Your task to perform on an android device: install app "Pluto TV - Live TV and Movies" Image 0: 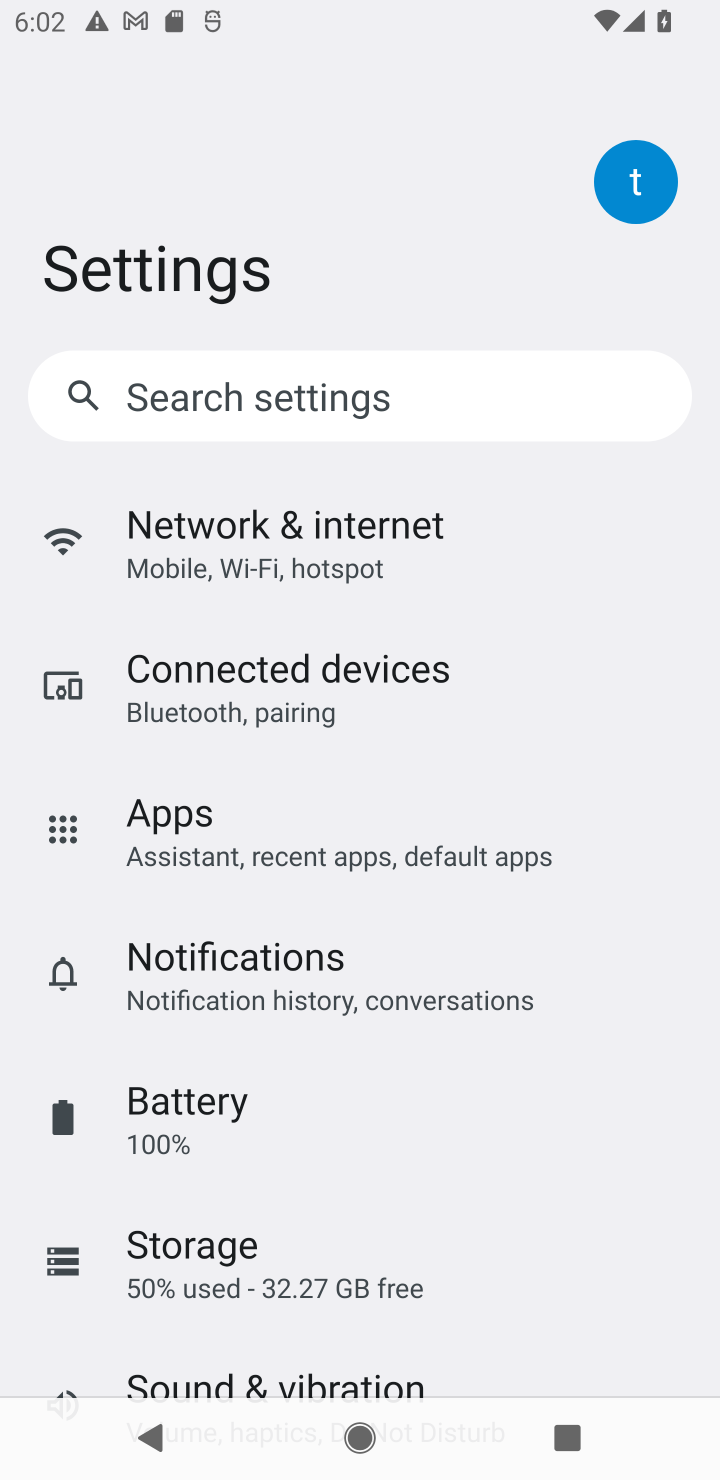
Step 0: press home button
Your task to perform on an android device: install app "Pluto TV - Live TV and Movies" Image 1: 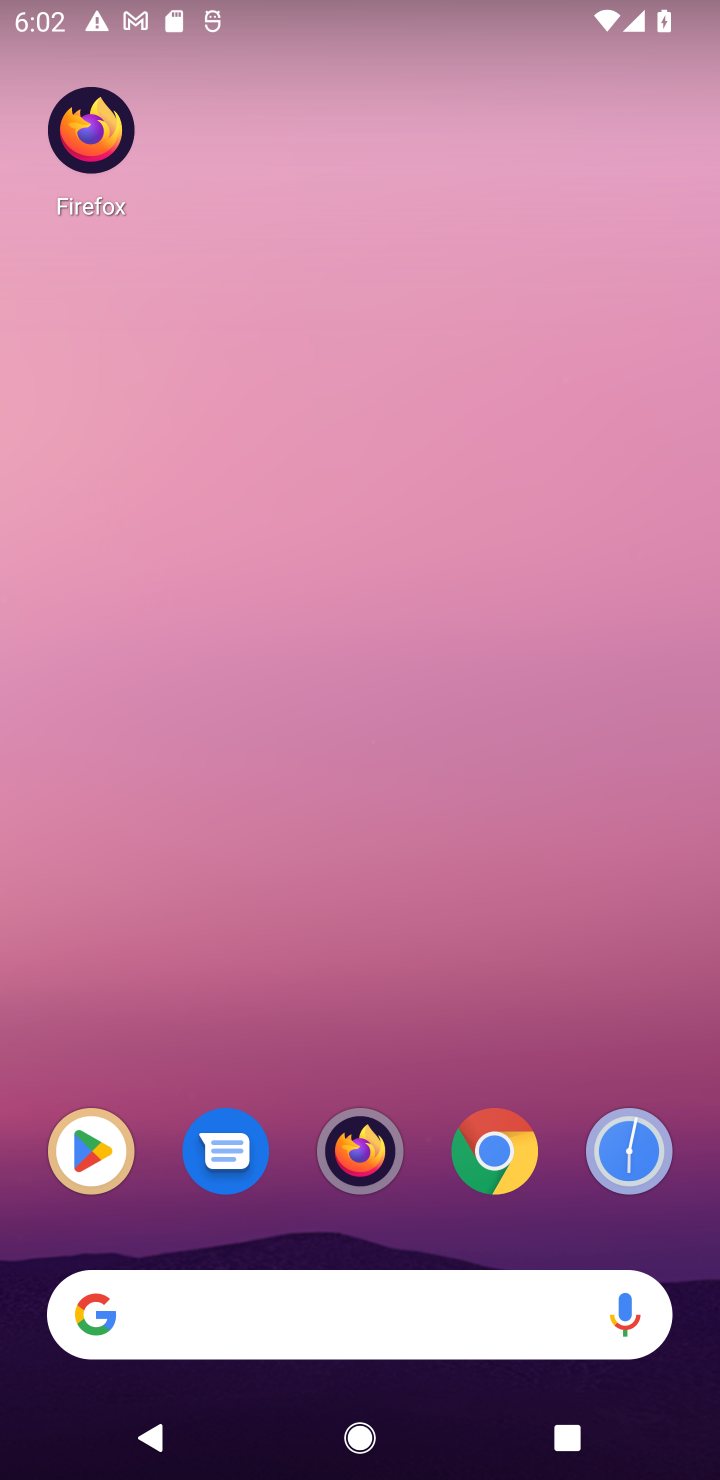
Step 1: drag from (480, 1297) to (502, 203)
Your task to perform on an android device: install app "Pluto TV - Live TV and Movies" Image 2: 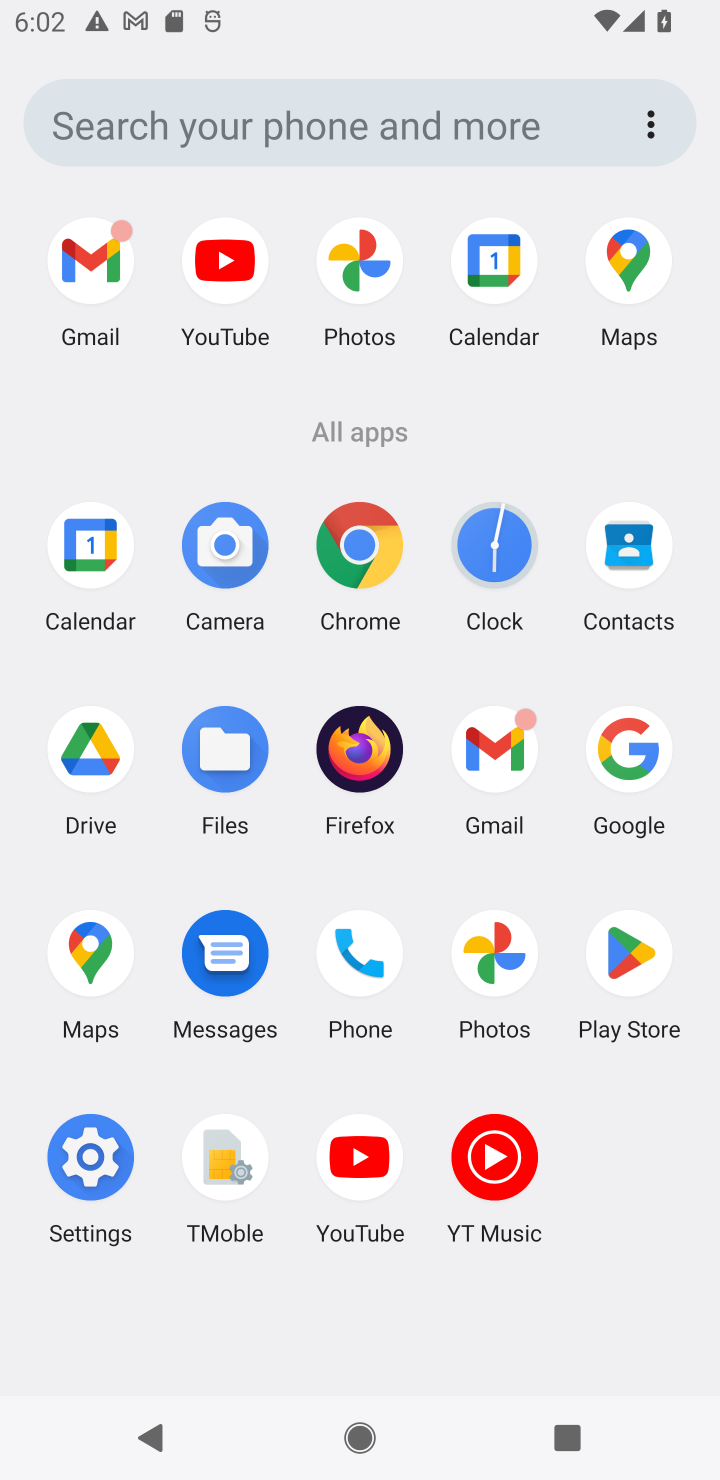
Step 2: click (632, 979)
Your task to perform on an android device: install app "Pluto TV - Live TV and Movies" Image 3: 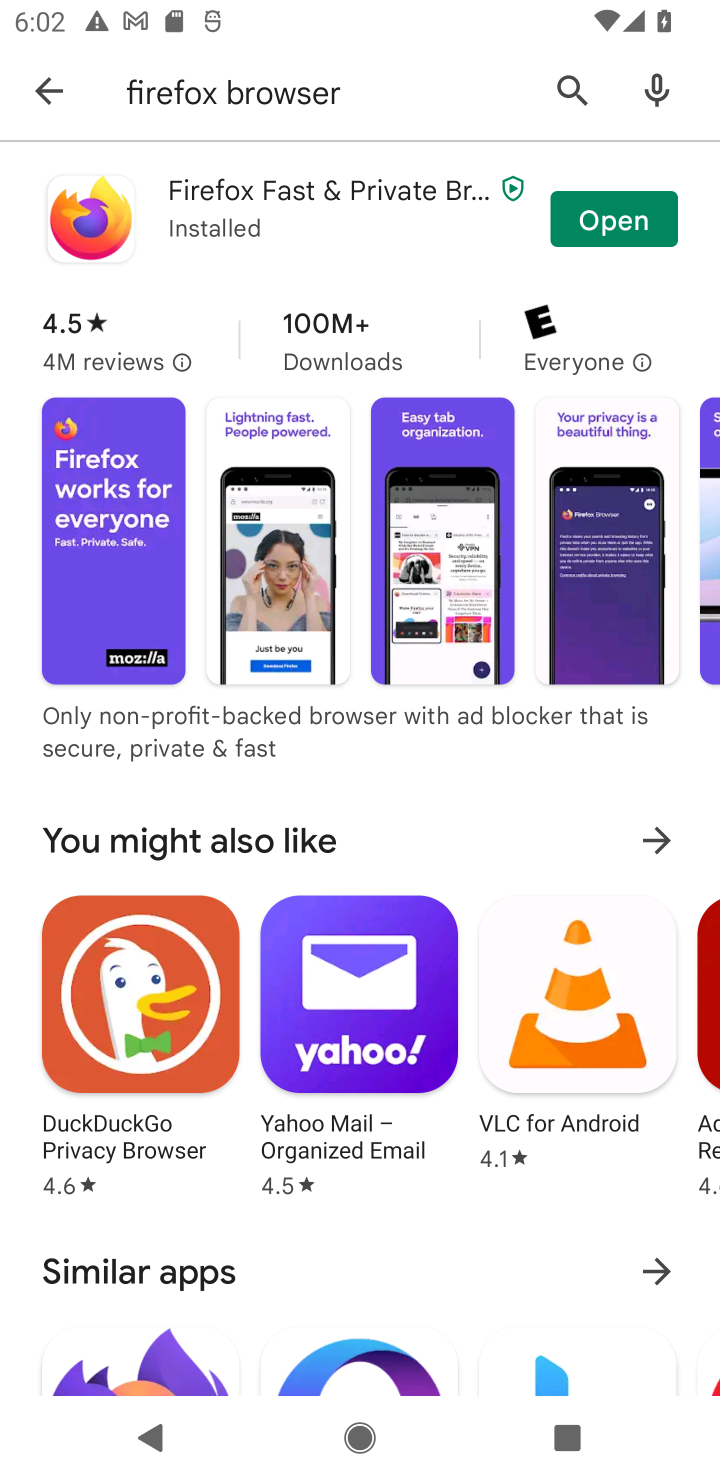
Step 3: click (576, 89)
Your task to perform on an android device: install app "Pluto TV - Live TV and Movies" Image 4: 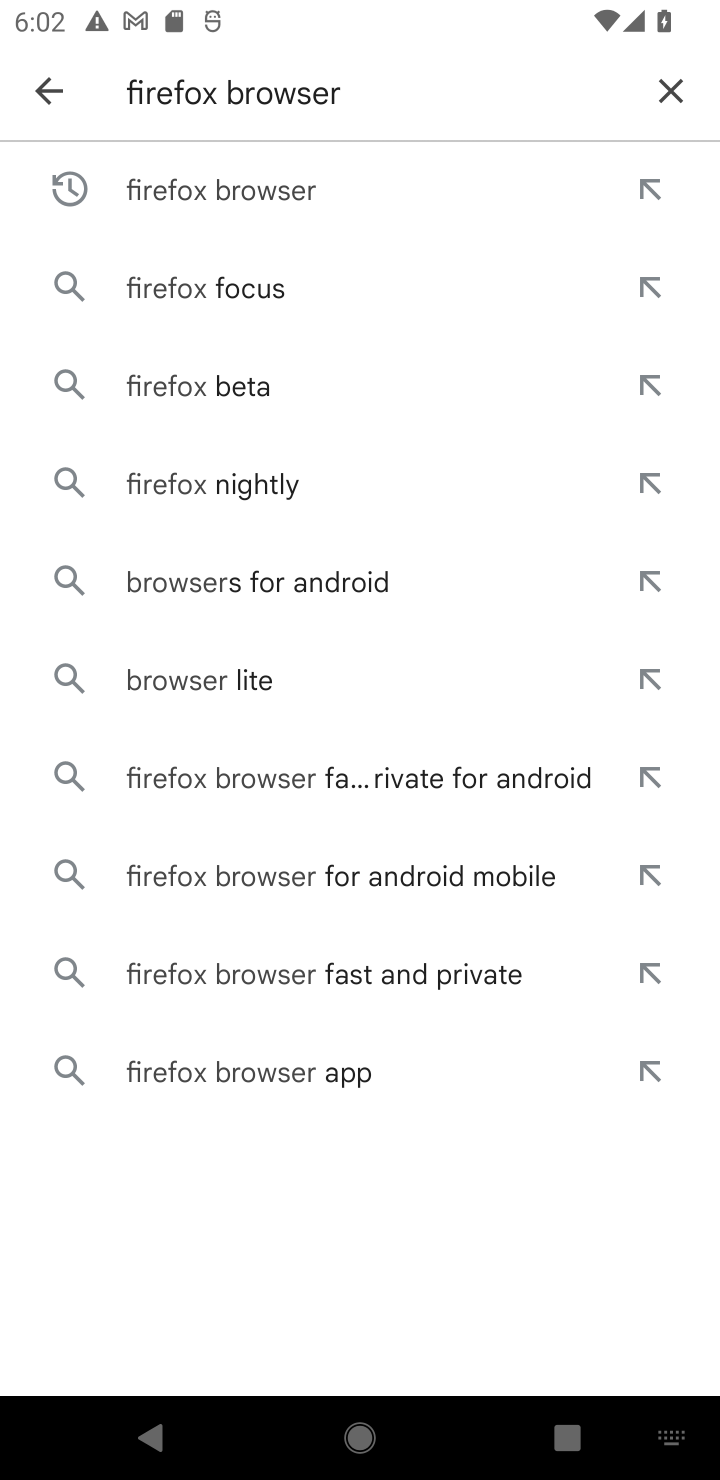
Step 4: click (682, 95)
Your task to perform on an android device: install app "Pluto TV - Live TV and Movies" Image 5: 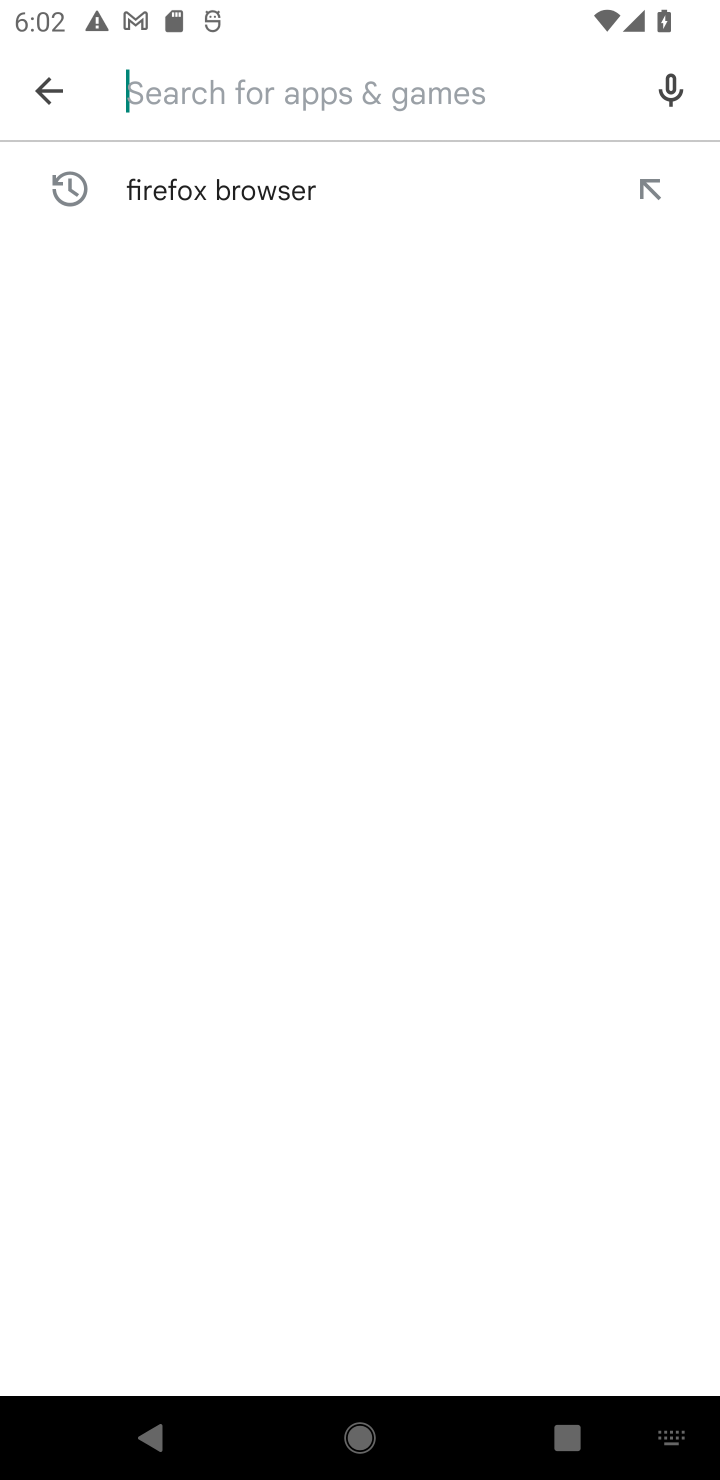
Step 5: type "pluto tv - live tv and movies"
Your task to perform on an android device: install app "Pluto TV - Live TV and Movies" Image 6: 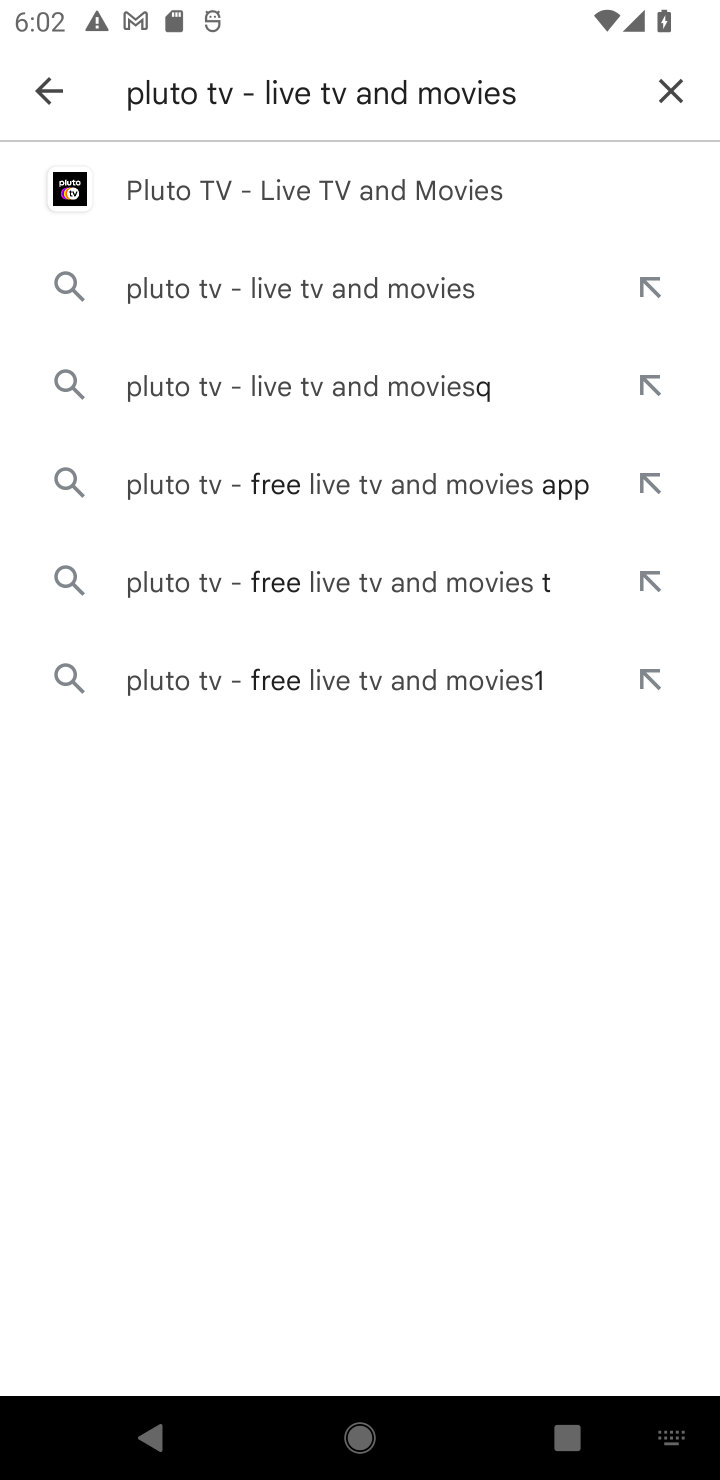
Step 6: click (248, 194)
Your task to perform on an android device: install app "Pluto TV - Live TV and Movies" Image 7: 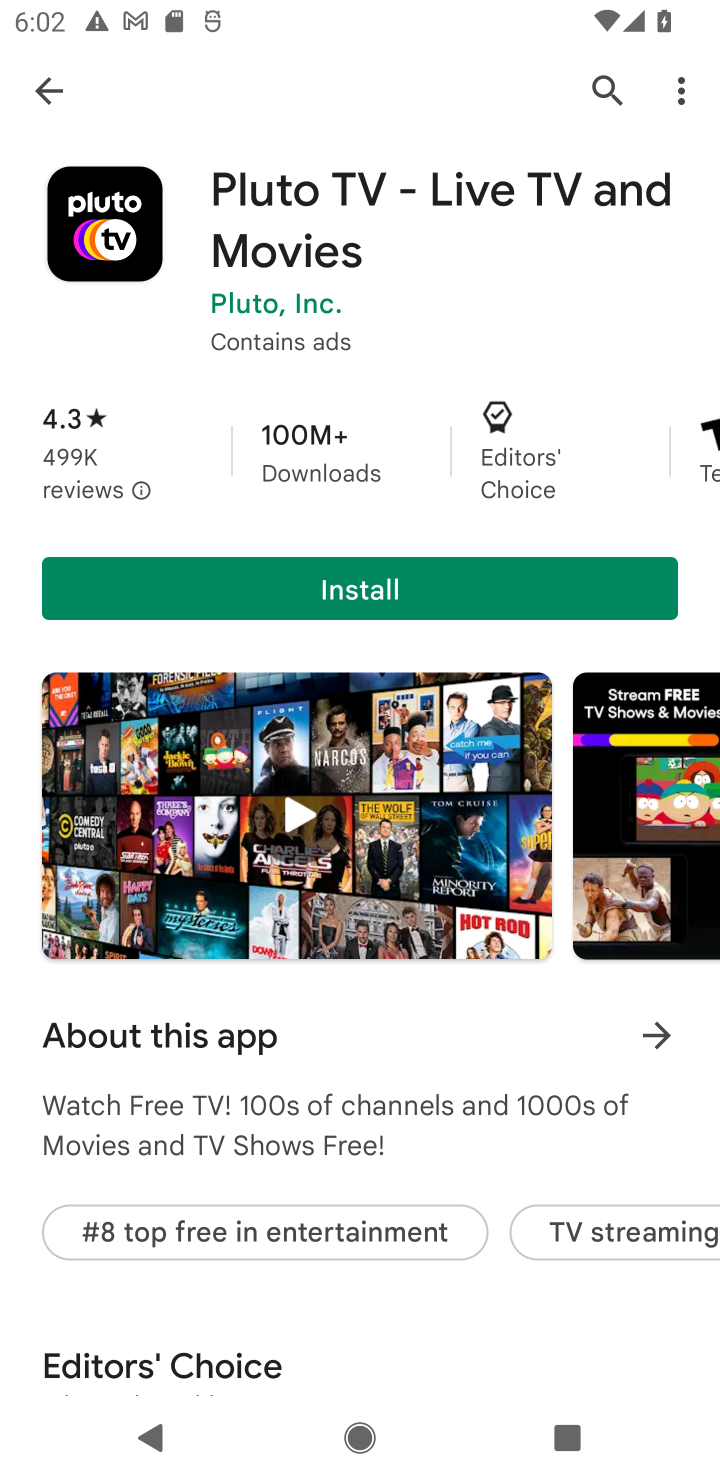
Step 7: click (328, 604)
Your task to perform on an android device: install app "Pluto TV - Live TV and Movies" Image 8: 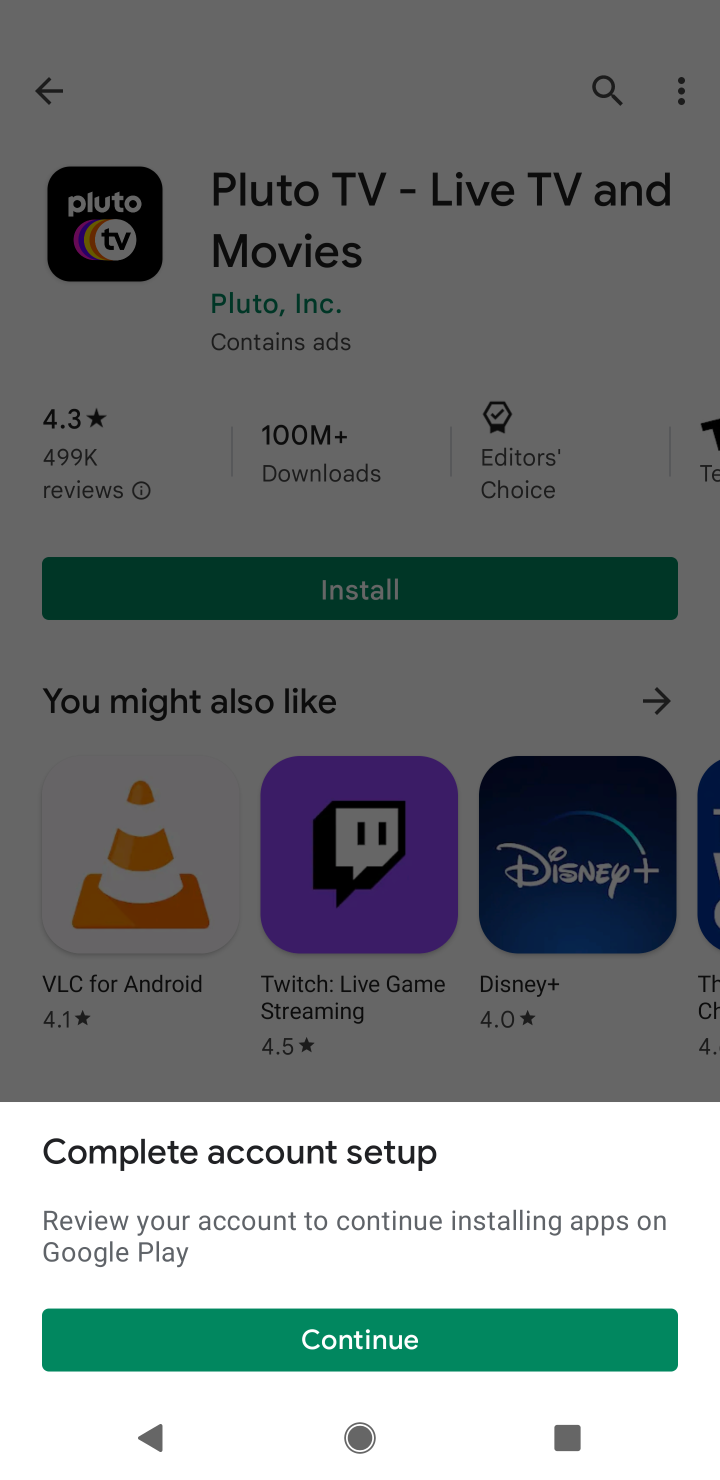
Step 8: click (342, 1343)
Your task to perform on an android device: install app "Pluto TV - Live TV and Movies" Image 9: 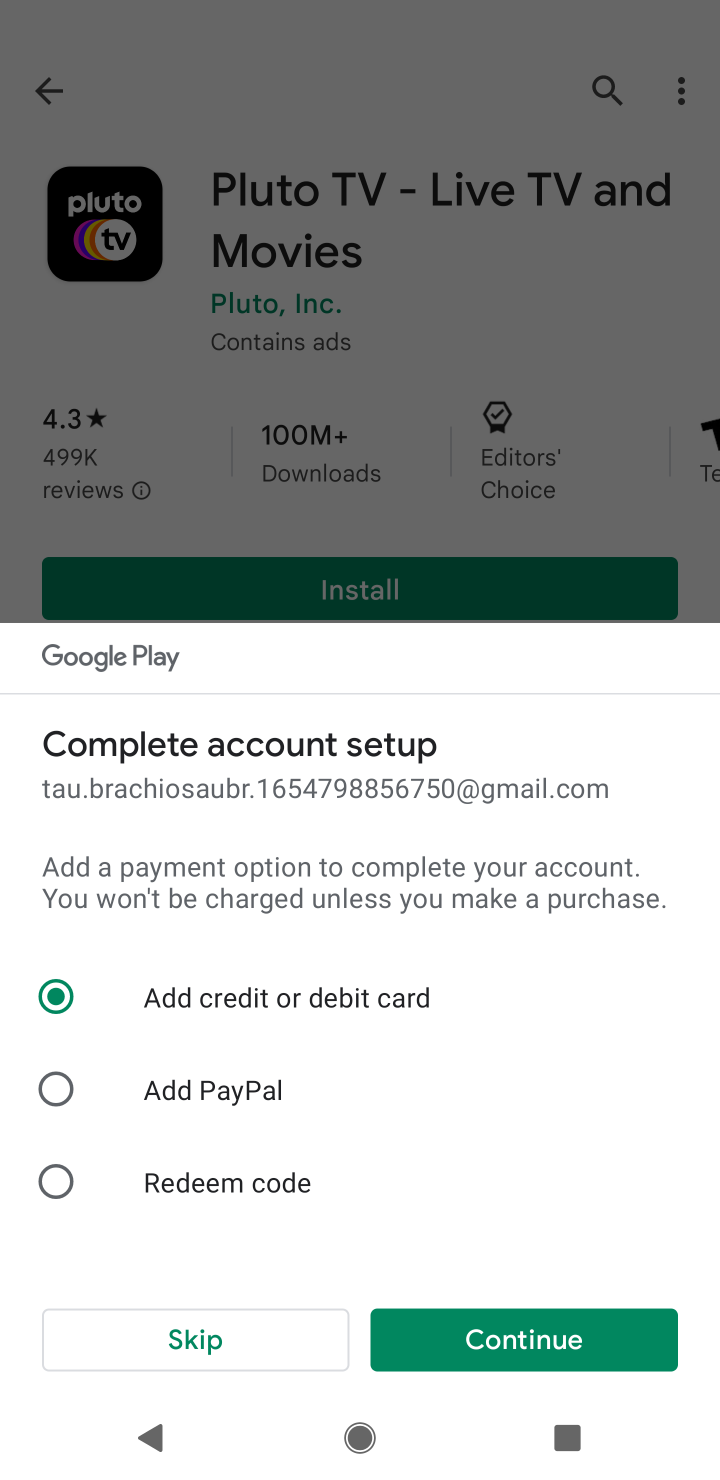
Step 9: click (247, 1360)
Your task to perform on an android device: install app "Pluto TV - Live TV and Movies" Image 10: 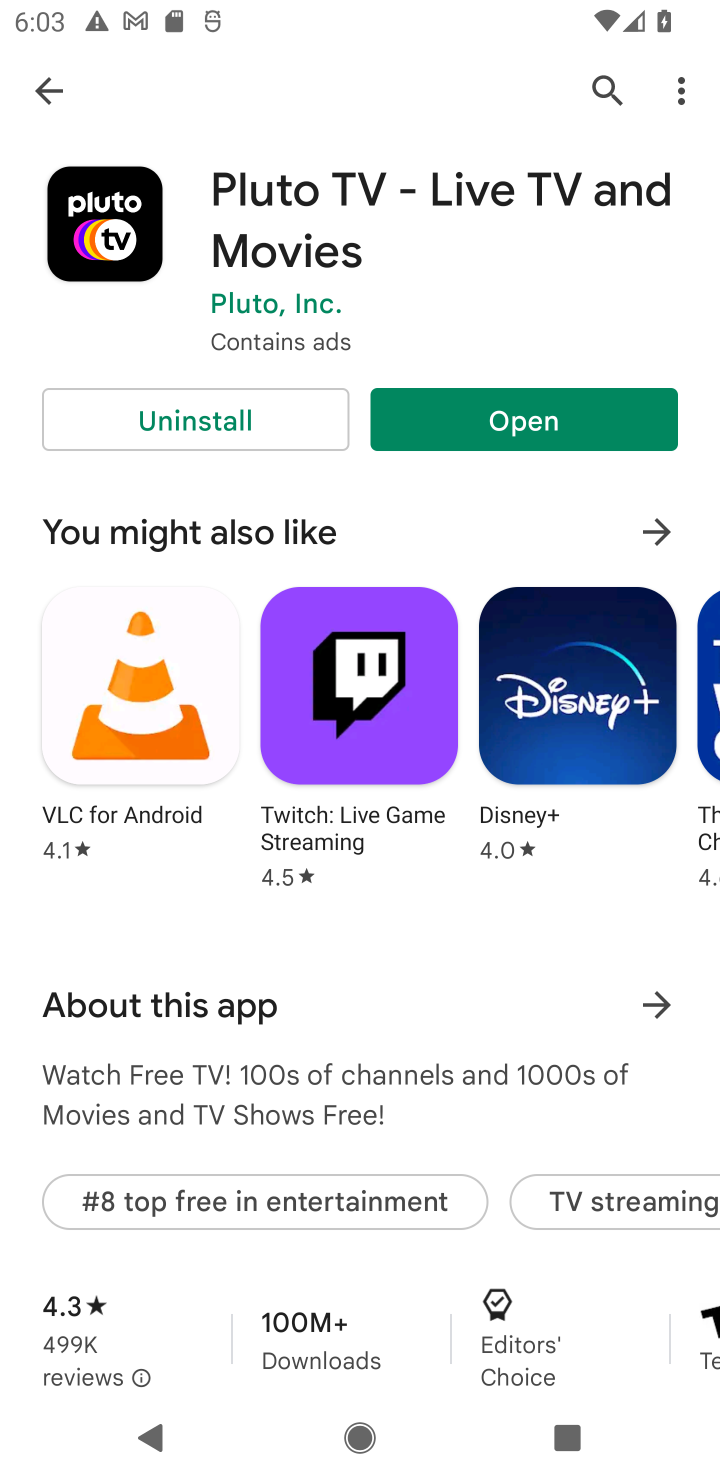
Step 10: task complete